Your task to perform on an android device: turn on airplane mode Image 0: 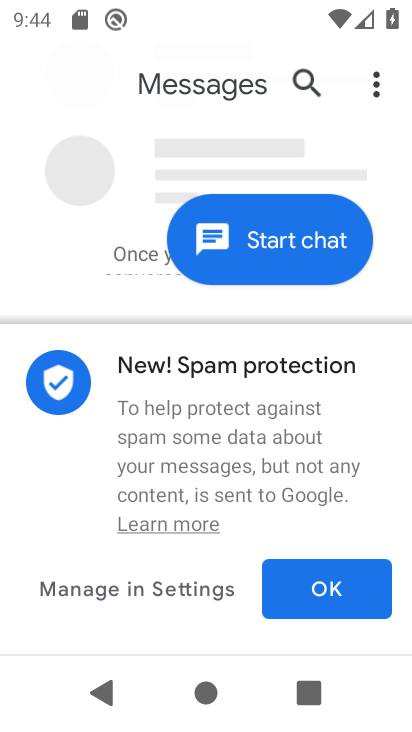
Step 0: press home button
Your task to perform on an android device: turn on airplane mode Image 1: 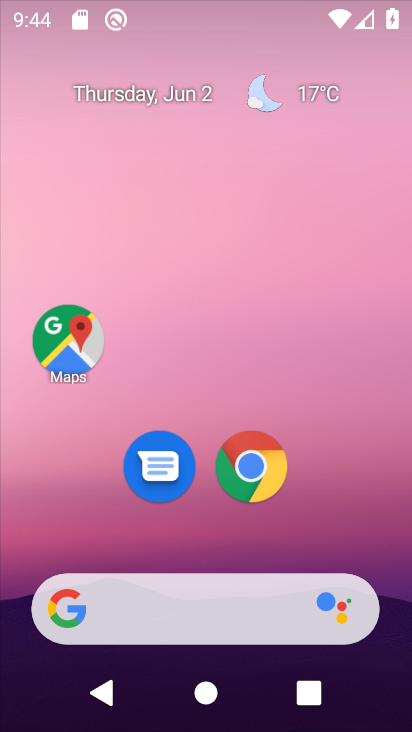
Step 1: drag from (218, 584) to (204, 171)
Your task to perform on an android device: turn on airplane mode Image 2: 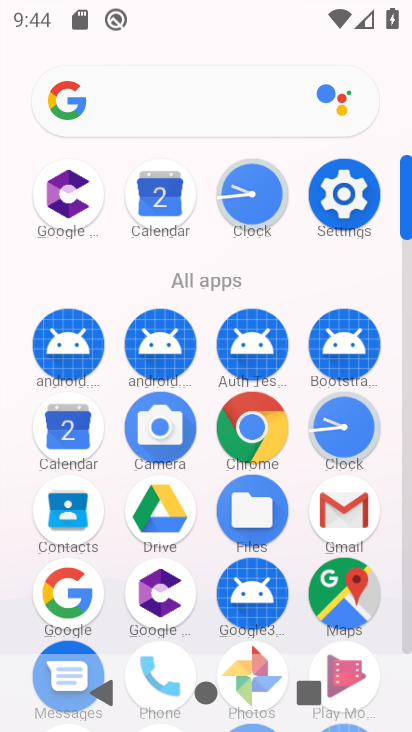
Step 2: click (345, 203)
Your task to perform on an android device: turn on airplane mode Image 3: 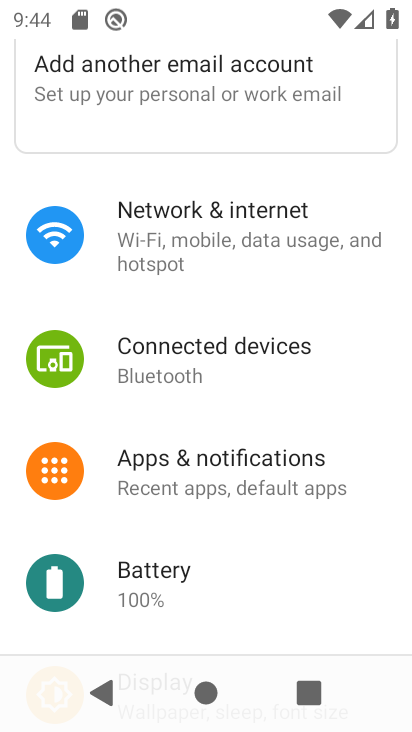
Step 3: drag from (160, 197) to (153, 550)
Your task to perform on an android device: turn on airplane mode Image 4: 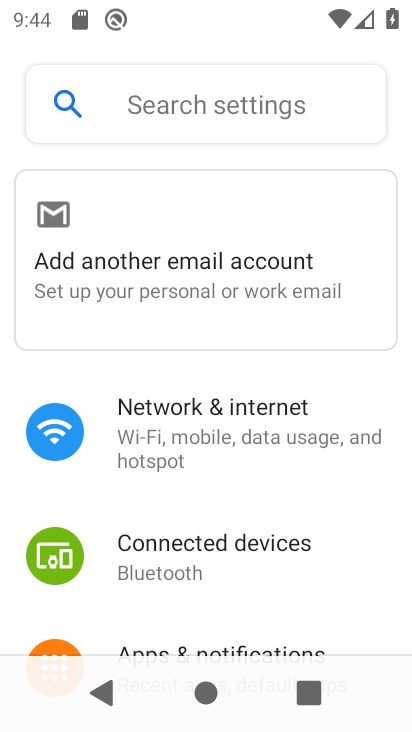
Step 4: click (191, 442)
Your task to perform on an android device: turn on airplane mode Image 5: 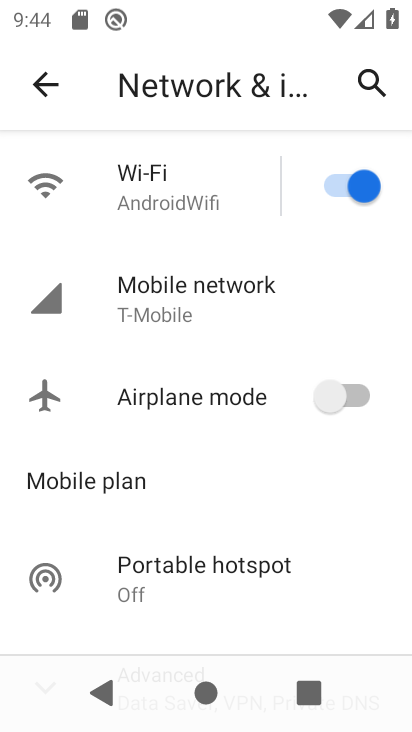
Step 5: click (342, 400)
Your task to perform on an android device: turn on airplane mode Image 6: 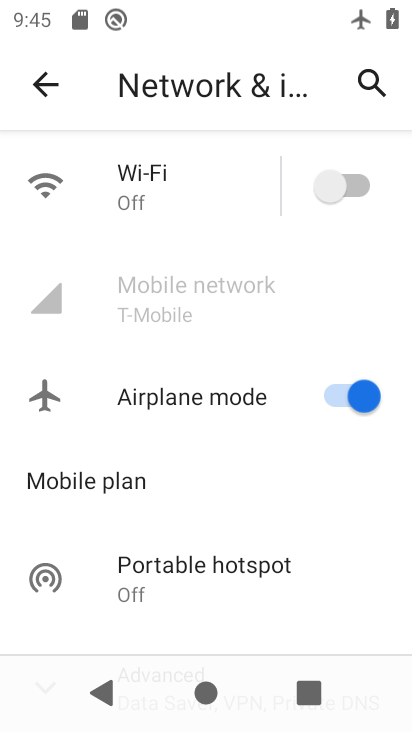
Step 6: task complete